Your task to perform on an android device: check the backup settings in the google photos Image 0: 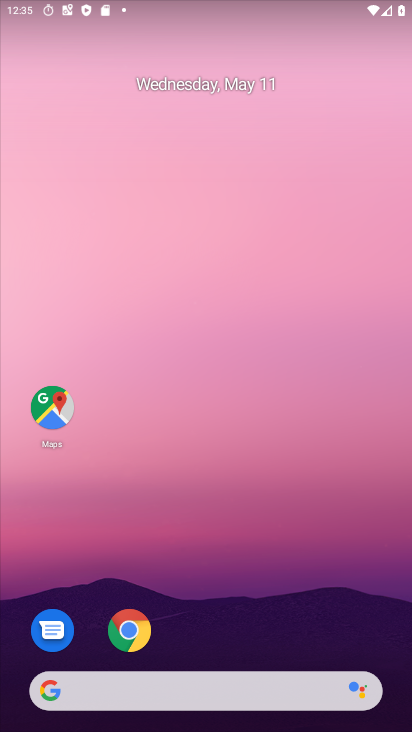
Step 0: drag from (291, 559) to (280, 48)
Your task to perform on an android device: check the backup settings in the google photos Image 1: 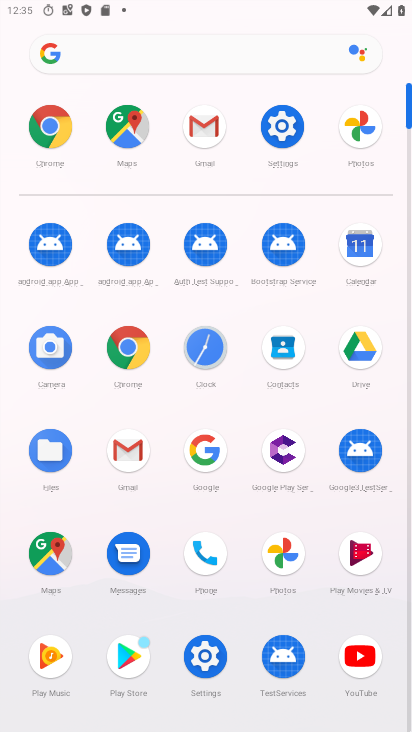
Step 1: click (358, 113)
Your task to perform on an android device: check the backup settings in the google photos Image 2: 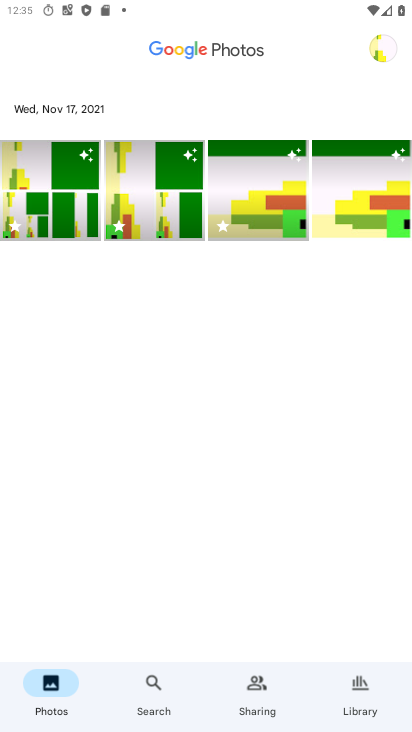
Step 2: click (376, 50)
Your task to perform on an android device: check the backup settings in the google photos Image 3: 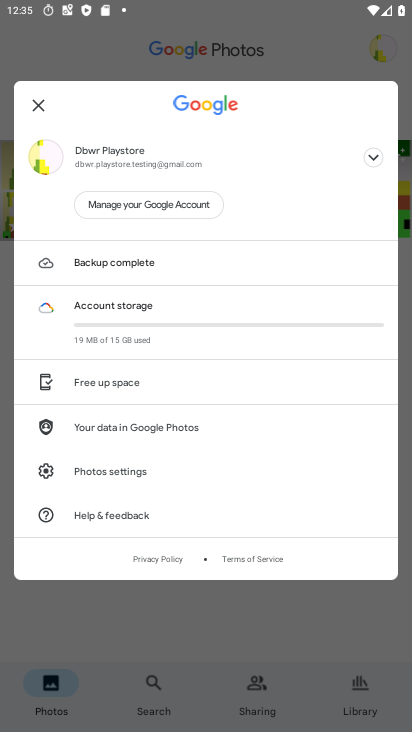
Step 3: click (136, 469)
Your task to perform on an android device: check the backup settings in the google photos Image 4: 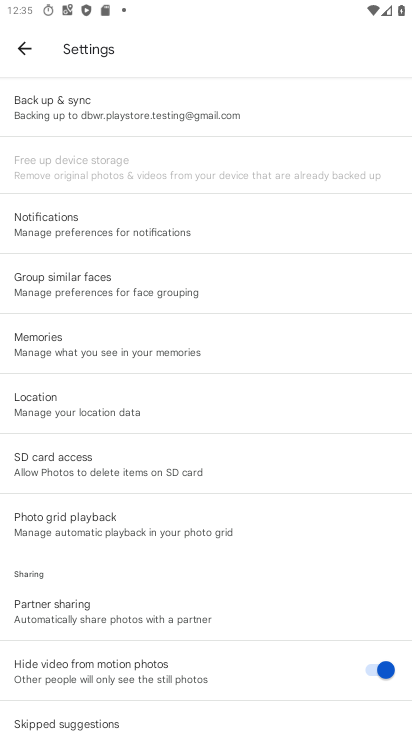
Step 4: click (193, 113)
Your task to perform on an android device: check the backup settings in the google photos Image 5: 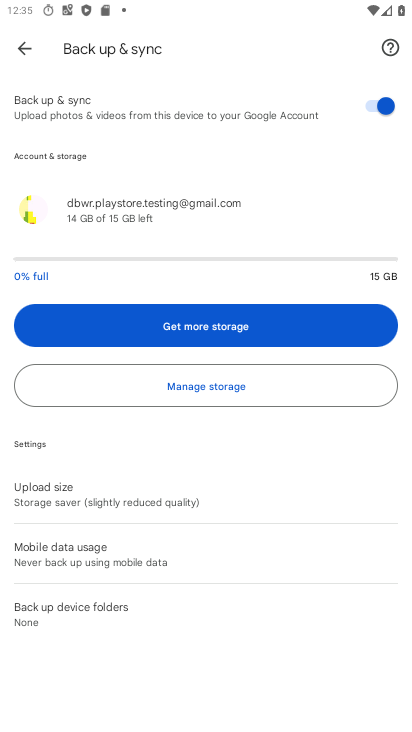
Step 5: task complete